Your task to perform on an android device: When is my next appointment? Image 0: 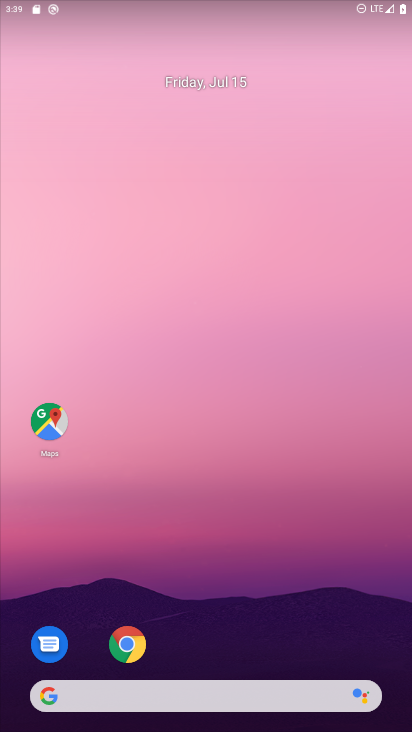
Step 0: drag from (70, 492) to (252, 54)
Your task to perform on an android device: When is my next appointment? Image 1: 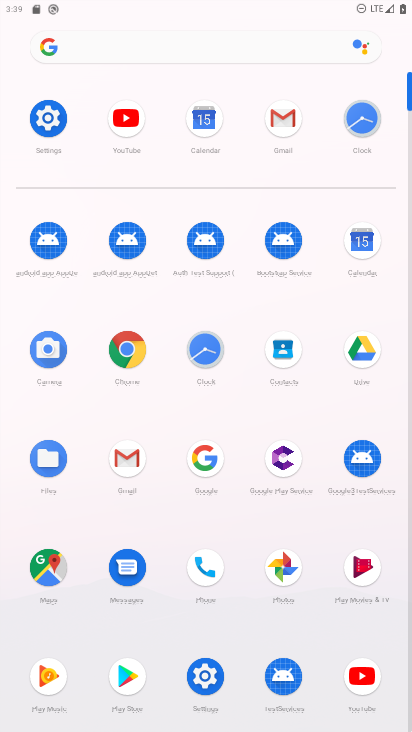
Step 1: click (362, 239)
Your task to perform on an android device: When is my next appointment? Image 2: 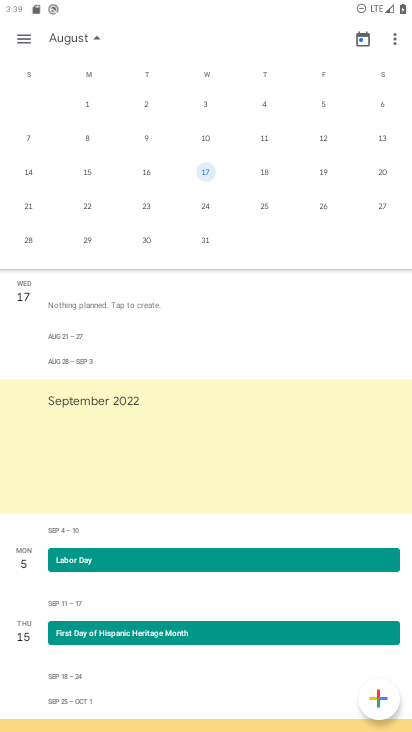
Step 2: click (253, 179)
Your task to perform on an android device: When is my next appointment? Image 3: 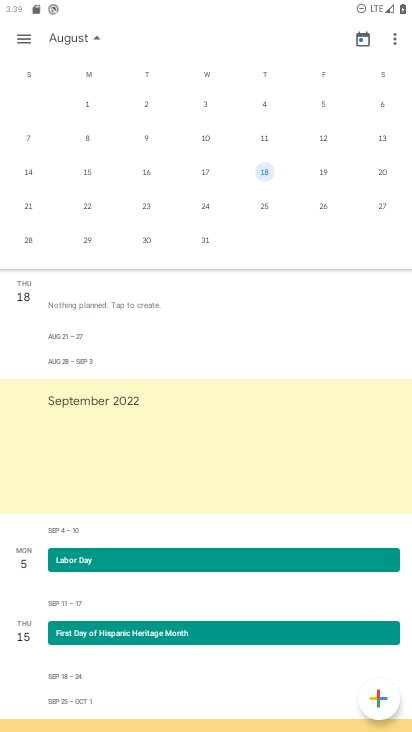
Step 3: task complete